Your task to perform on an android device: add a label to a message in the gmail app Image 0: 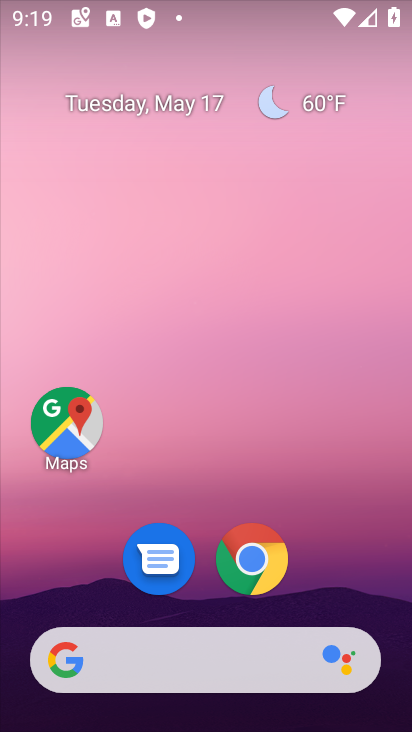
Step 0: drag from (250, 543) to (291, 122)
Your task to perform on an android device: add a label to a message in the gmail app Image 1: 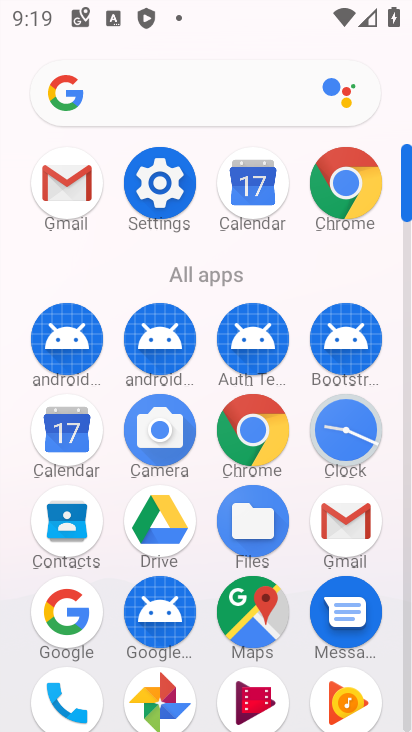
Step 1: click (347, 537)
Your task to perform on an android device: add a label to a message in the gmail app Image 2: 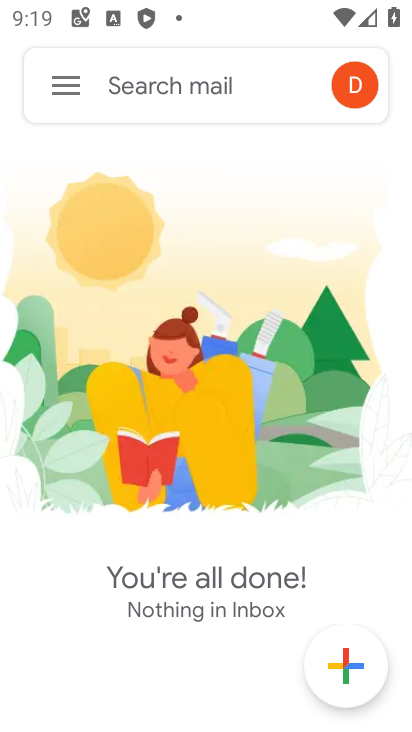
Step 2: click (74, 100)
Your task to perform on an android device: add a label to a message in the gmail app Image 3: 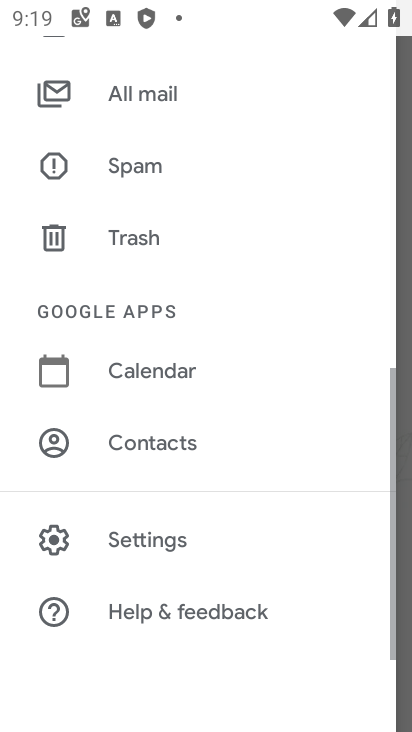
Step 3: click (150, 105)
Your task to perform on an android device: add a label to a message in the gmail app Image 4: 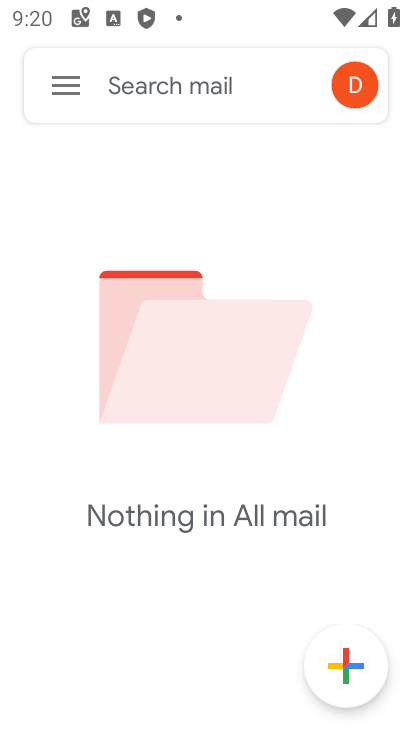
Step 4: task complete